Your task to perform on an android device: open device folders in google photos Image 0: 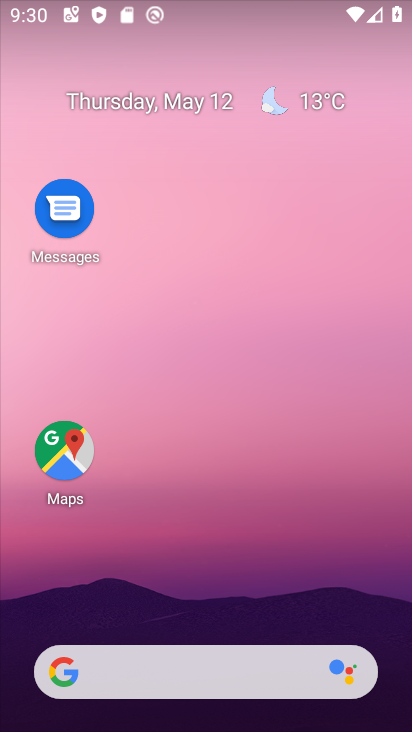
Step 0: drag from (181, 653) to (149, 11)
Your task to perform on an android device: open device folders in google photos Image 1: 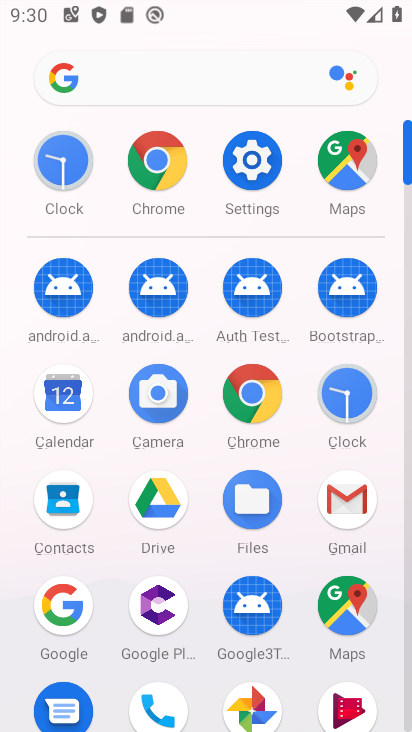
Step 1: click (241, 707)
Your task to perform on an android device: open device folders in google photos Image 2: 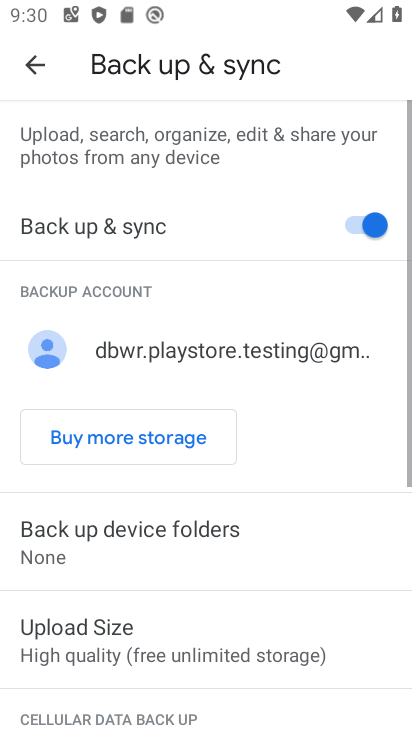
Step 2: click (38, 64)
Your task to perform on an android device: open device folders in google photos Image 3: 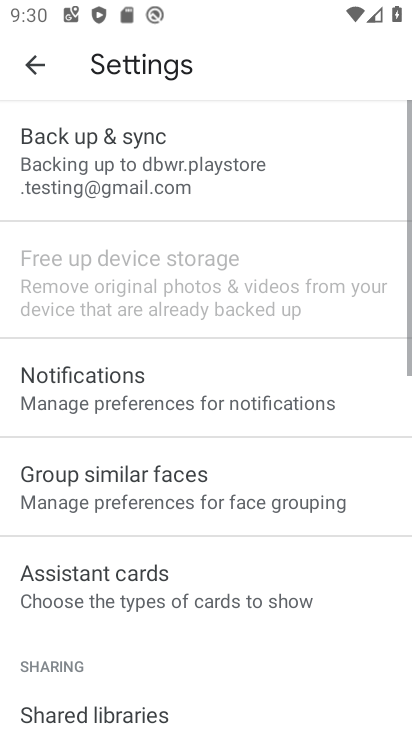
Step 3: click (38, 64)
Your task to perform on an android device: open device folders in google photos Image 4: 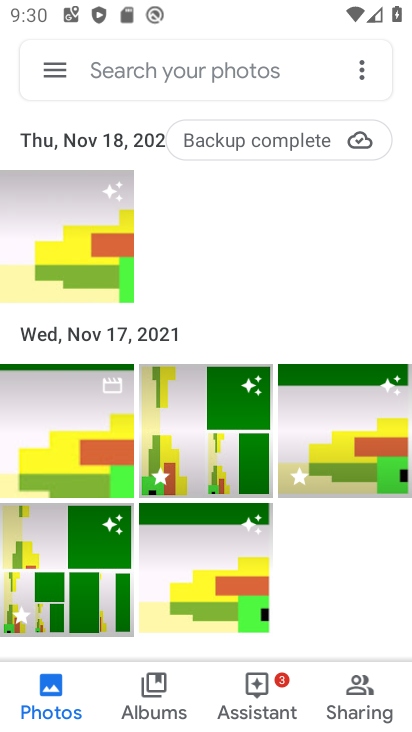
Step 4: click (38, 64)
Your task to perform on an android device: open device folders in google photos Image 5: 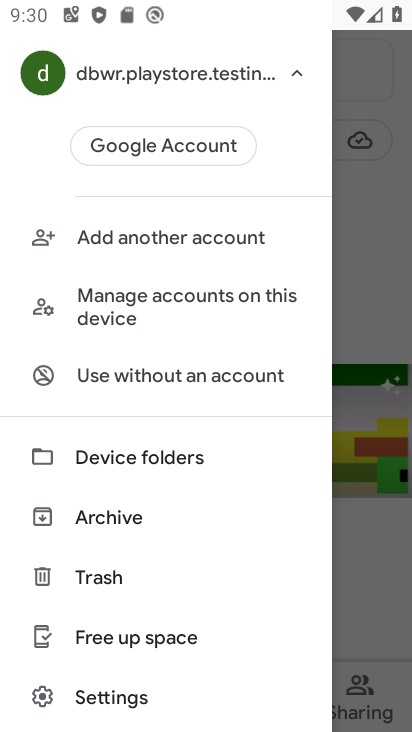
Step 5: click (102, 469)
Your task to perform on an android device: open device folders in google photos Image 6: 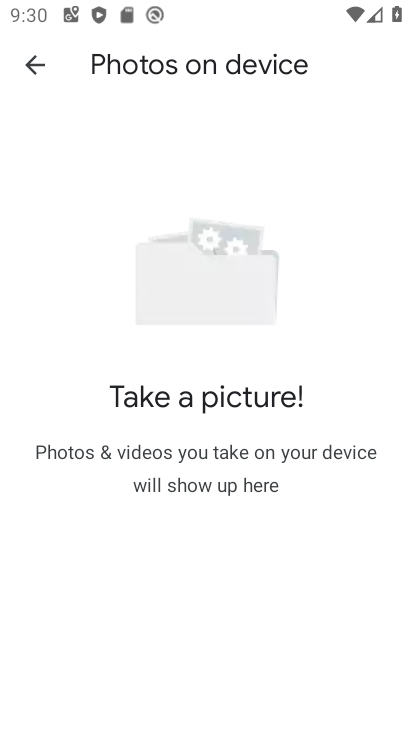
Step 6: task complete